Your task to perform on an android device: Open Android settings Image 0: 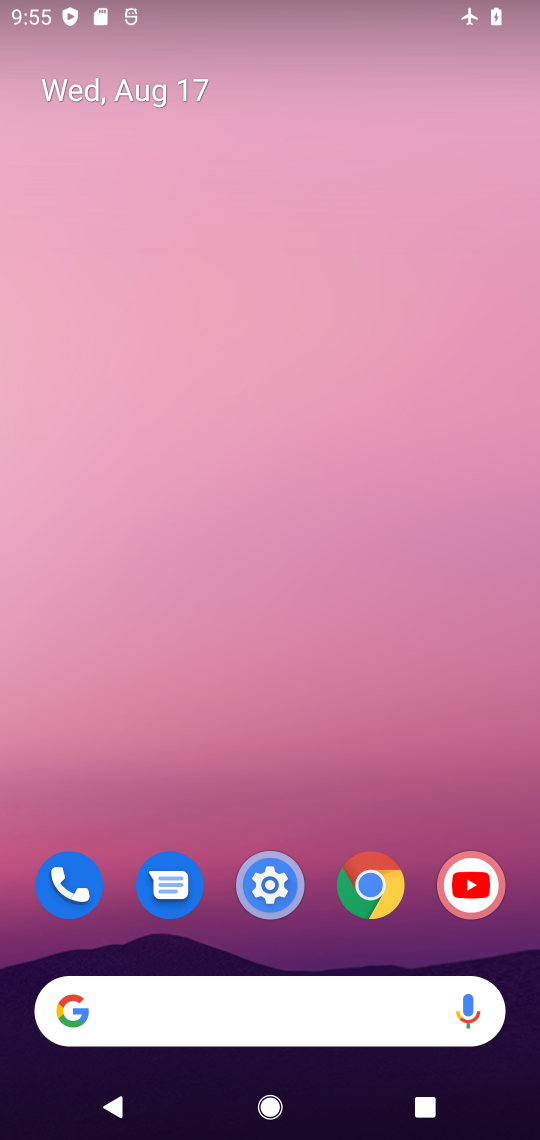
Step 0: click (269, 884)
Your task to perform on an android device: Open Android settings Image 1: 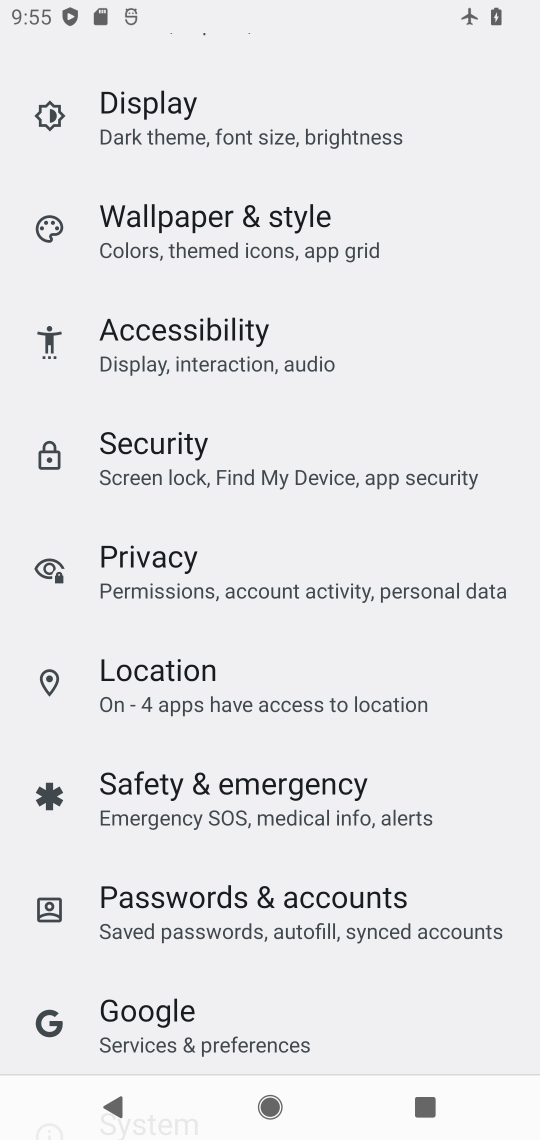
Step 1: drag from (426, 877) to (435, 269)
Your task to perform on an android device: Open Android settings Image 2: 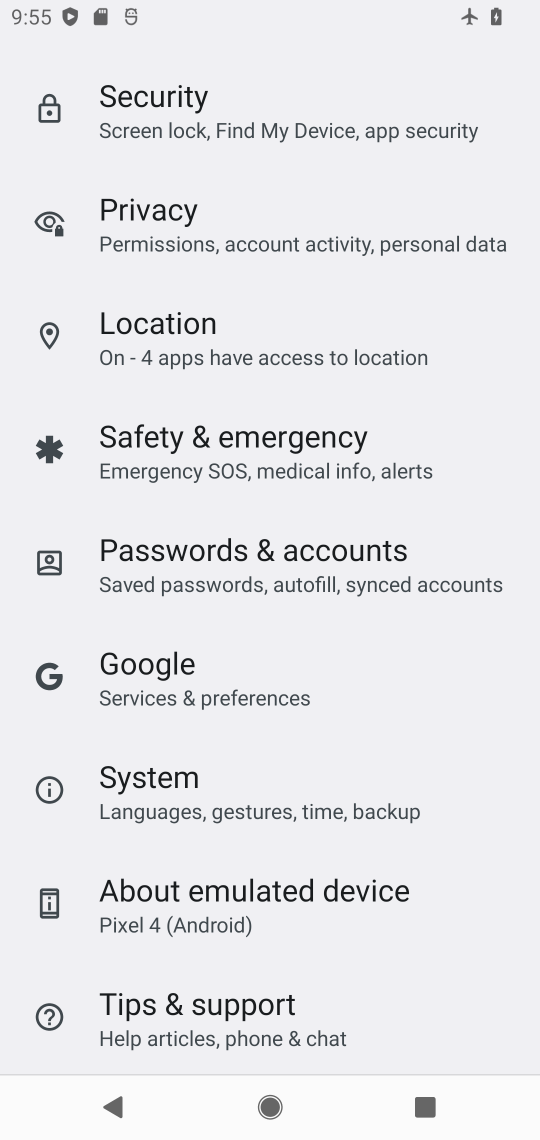
Step 2: click (167, 903)
Your task to perform on an android device: Open Android settings Image 3: 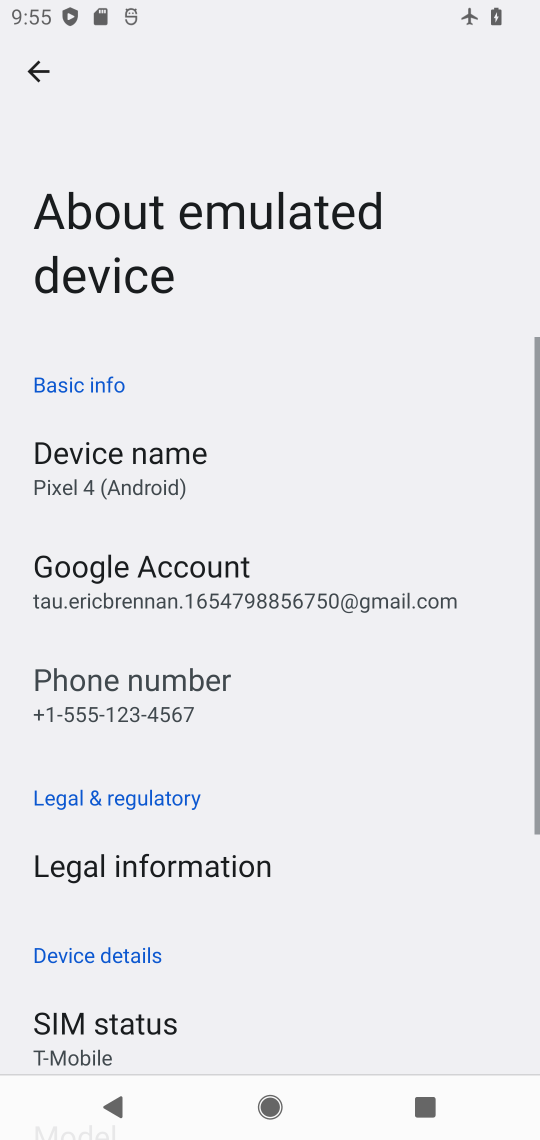
Step 3: task complete